Your task to perform on an android device: Open calendar and show me the third week of next month Image 0: 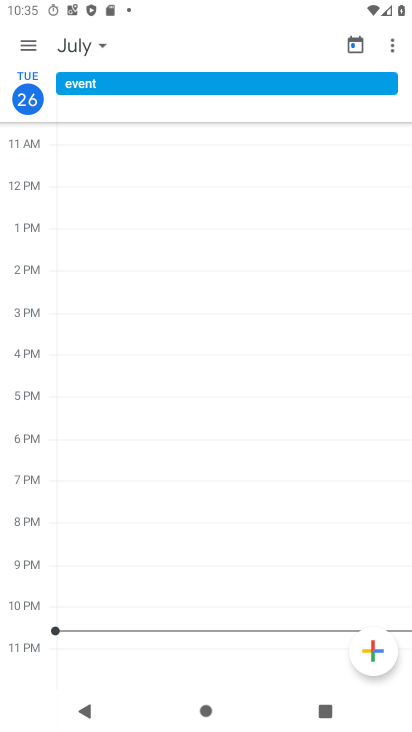
Step 0: click (72, 48)
Your task to perform on an android device: Open calendar and show me the third week of next month Image 1: 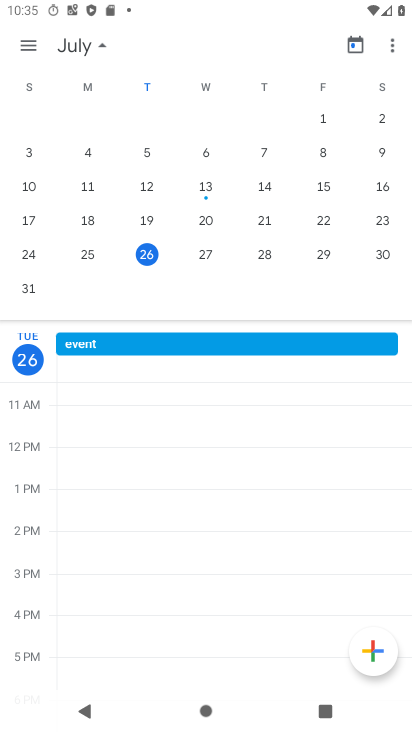
Step 1: drag from (394, 284) to (44, 219)
Your task to perform on an android device: Open calendar and show me the third week of next month Image 2: 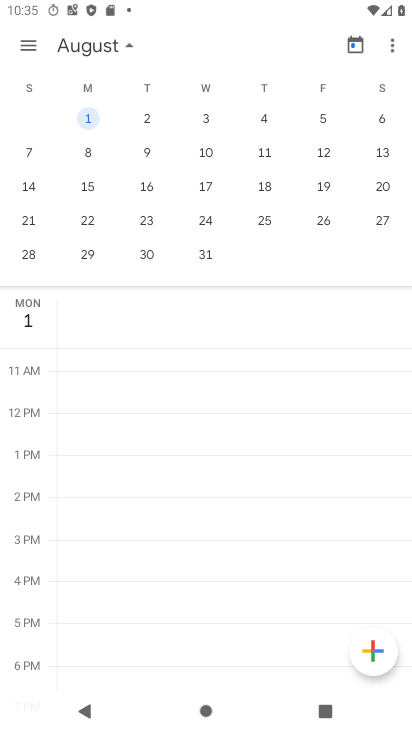
Step 2: click (264, 184)
Your task to perform on an android device: Open calendar and show me the third week of next month Image 3: 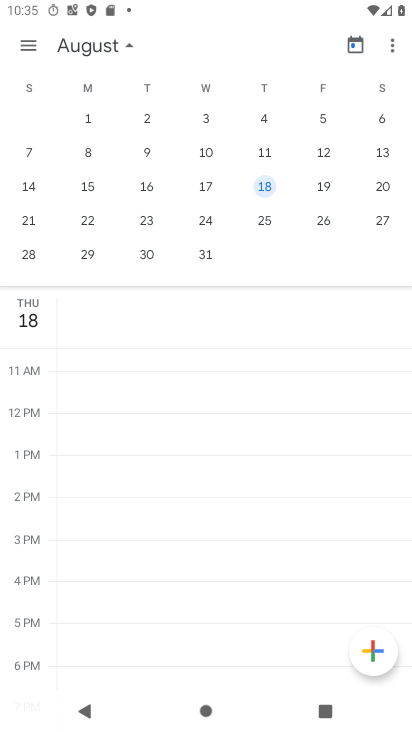
Step 3: task complete